Your task to perform on an android device: check storage Image 0: 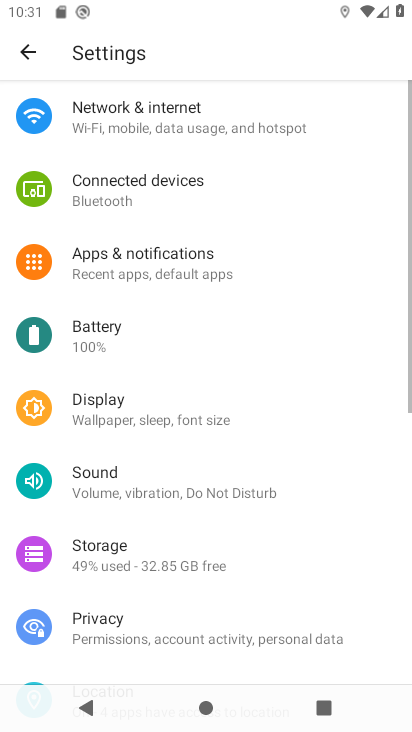
Step 0: click (191, 563)
Your task to perform on an android device: check storage Image 1: 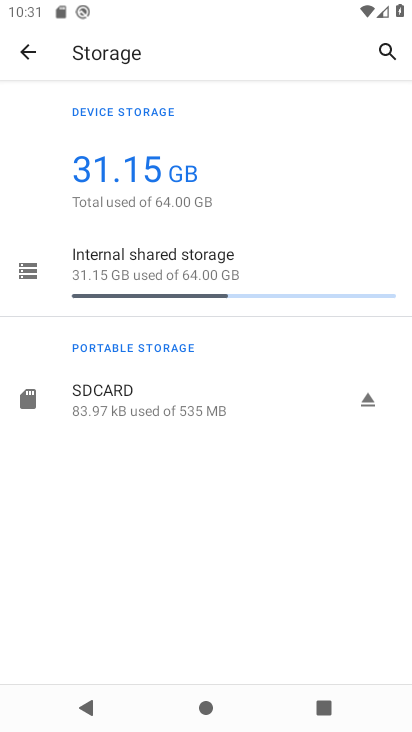
Step 1: task complete